Your task to perform on an android device: turn on translation in the chrome app Image 0: 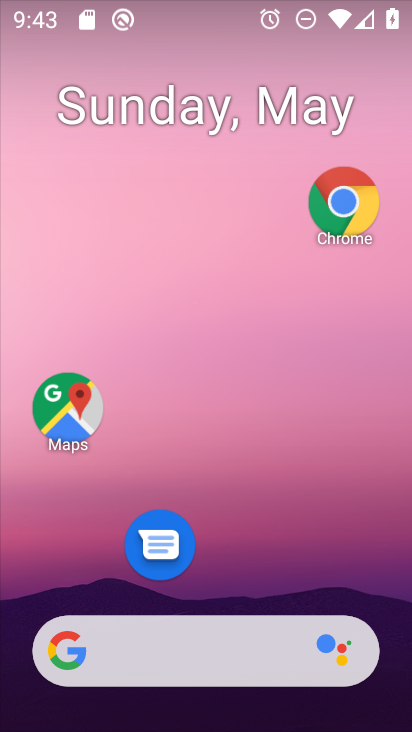
Step 0: click (356, 213)
Your task to perform on an android device: turn on translation in the chrome app Image 1: 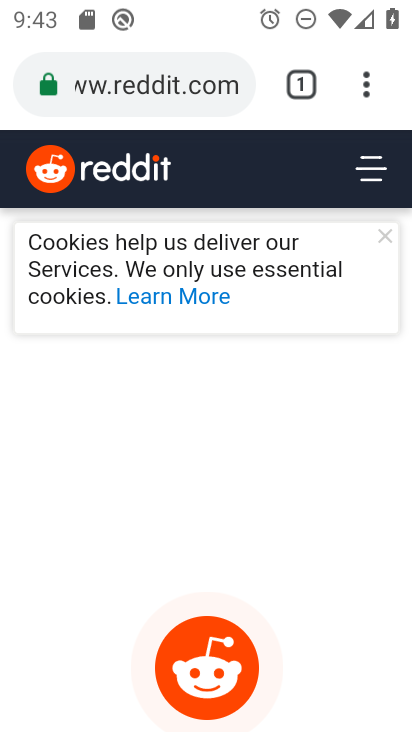
Step 1: click (367, 89)
Your task to perform on an android device: turn on translation in the chrome app Image 2: 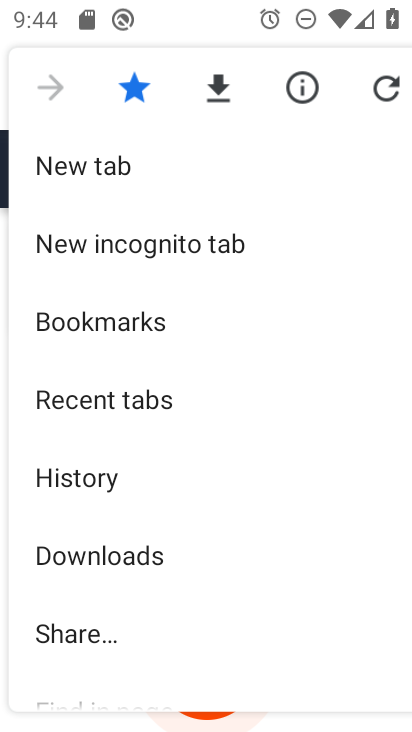
Step 2: drag from (162, 607) to (188, 343)
Your task to perform on an android device: turn on translation in the chrome app Image 3: 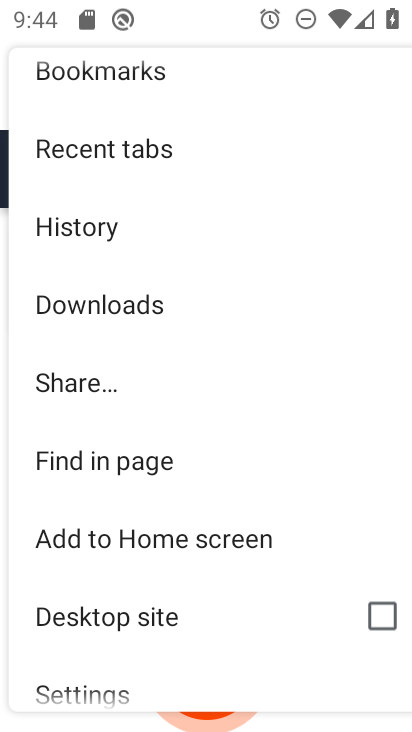
Step 3: drag from (163, 622) to (214, 275)
Your task to perform on an android device: turn on translation in the chrome app Image 4: 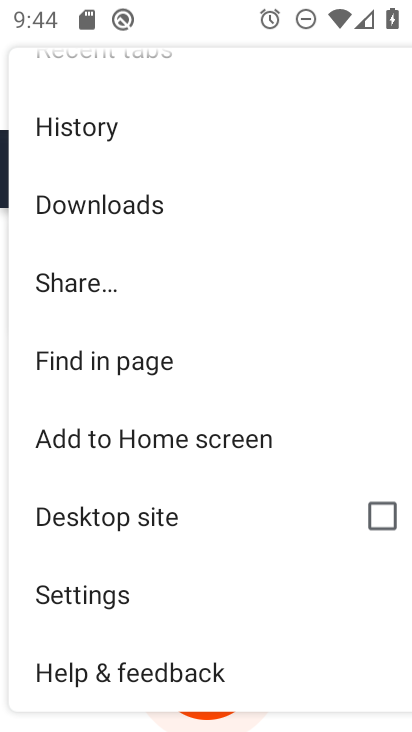
Step 4: click (191, 580)
Your task to perform on an android device: turn on translation in the chrome app Image 5: 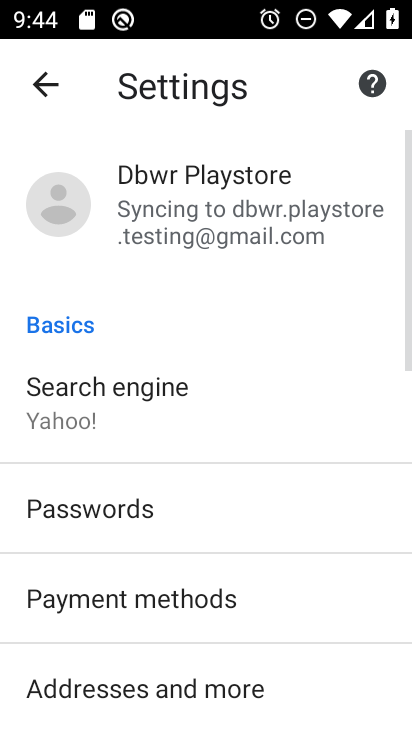
Step 5: drag from (180, 660) to (220, 329)
Your task to perform on an android device: turn on translation in the chrome app Image 6: 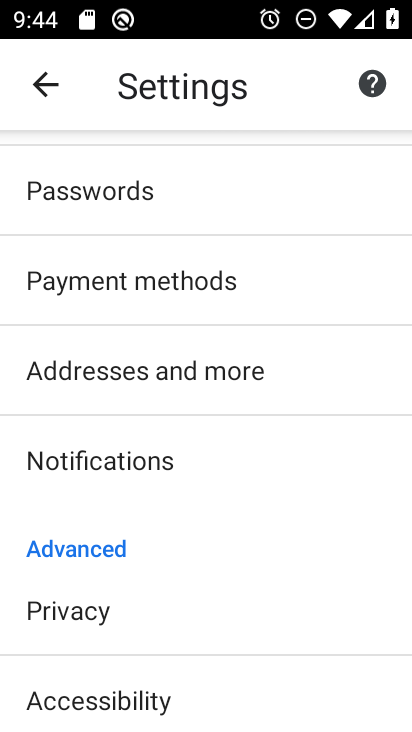
Step 6: drag from (147, 482) to (136, 141)
Your task to perform on an android device: turn on translation in the chrome app Image 7: 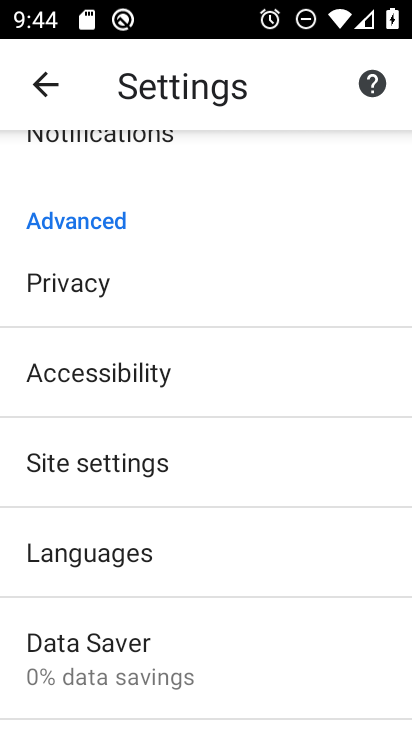
Step 7: drag from (149, 638) to (229, 366)
Your task to perform on an android device: turn on translation in the chrome app Image 8: 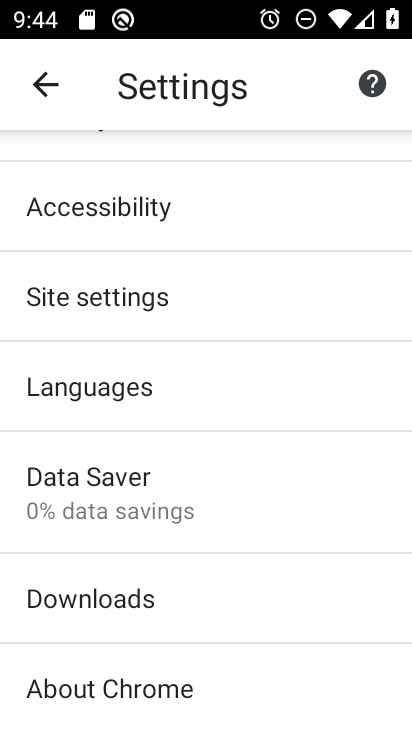
Step 8: click (231, 391)
Your task to perform on an android device: turn on translation in the chrome app Image 9: 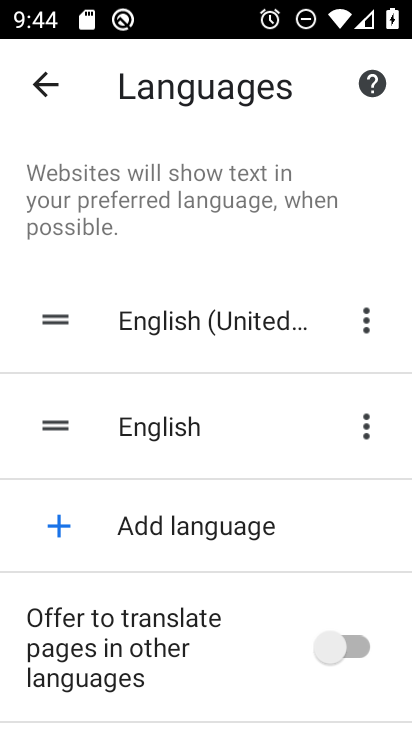
Step 9: drag from (185, 670) to (236, 329)
Your task to perform on an android device: turn on translation in the chrome app Image 10: 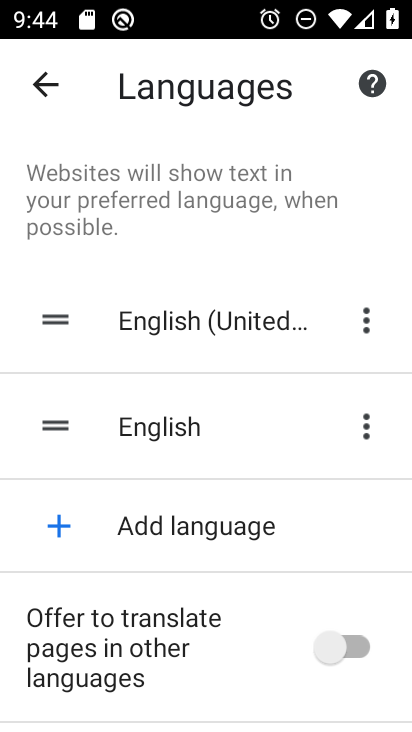
Step 10: click (349, 650)
Your task to perform on an android device: turn on translation in the chrome app Image 11: 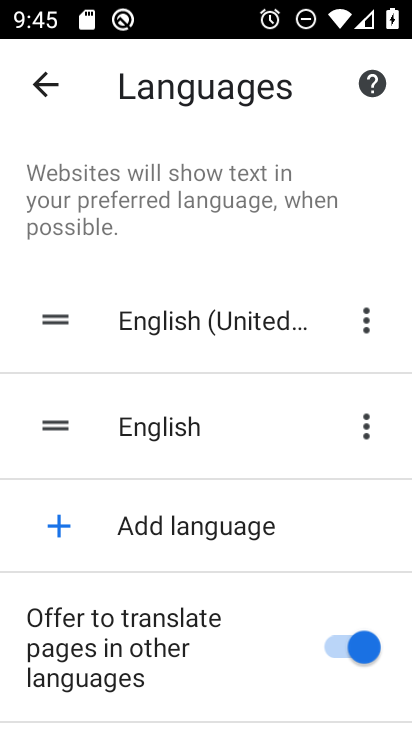
Step 11: task complete